Your task to perform on an android device: uninstall "AliExpress" Image 0: 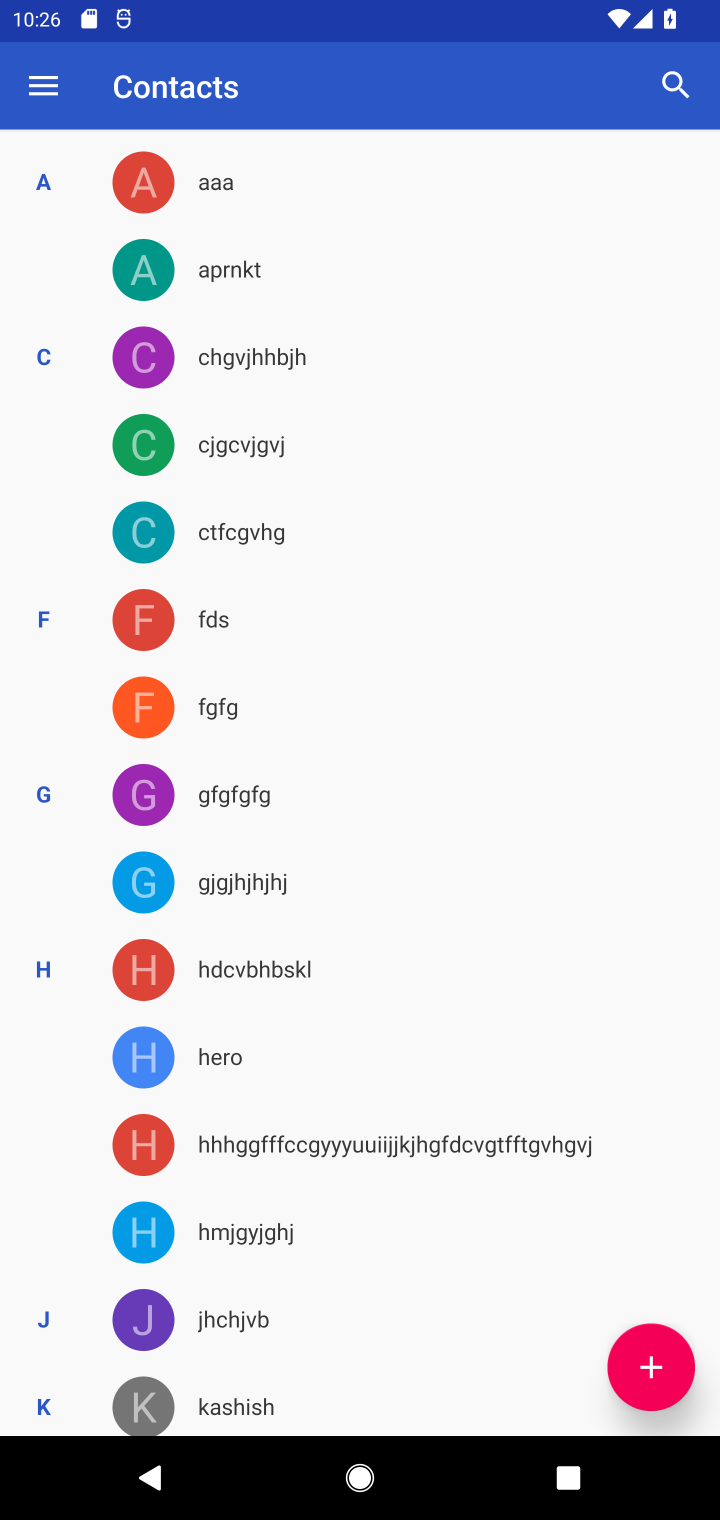
Step 0: press home button
Your task to perform on an android device: uninstall "AliExpress" Image 1: 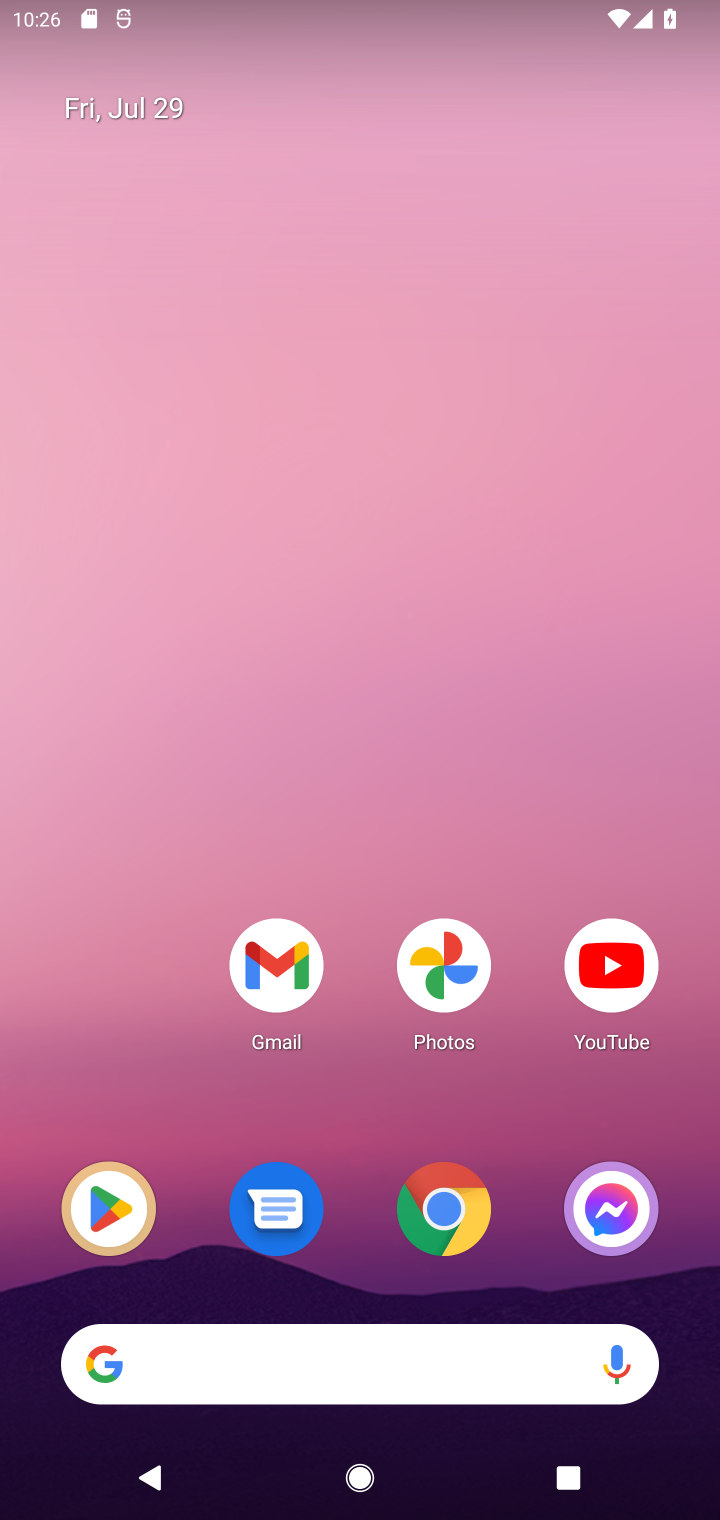
Step 1: drag from (522, 919) to (466, 212)
Your task to perform on an android device: uninstall "AliExpress" Image 2: 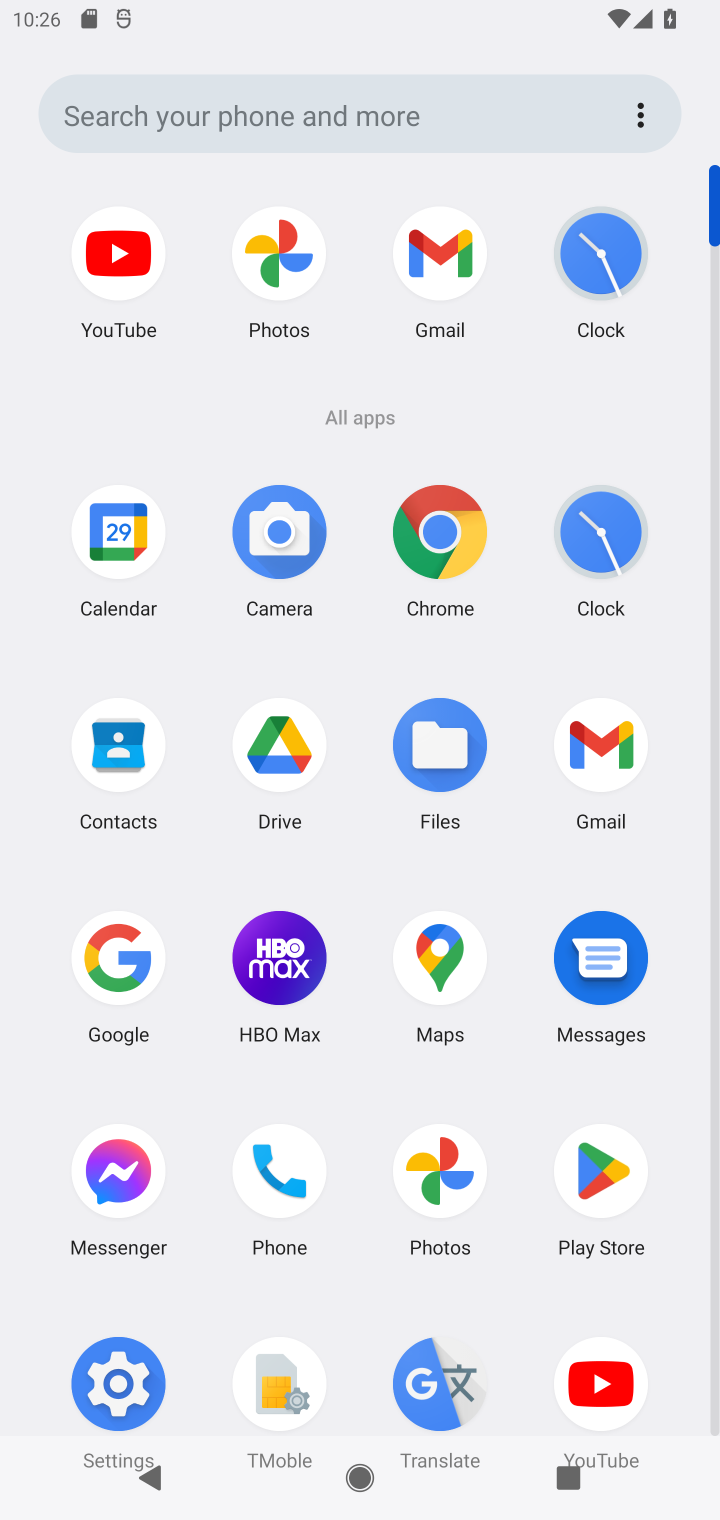
Step 2: click (611, 1180)
Your task to perform on an android device: uninstall "AliExpress" Image 3: 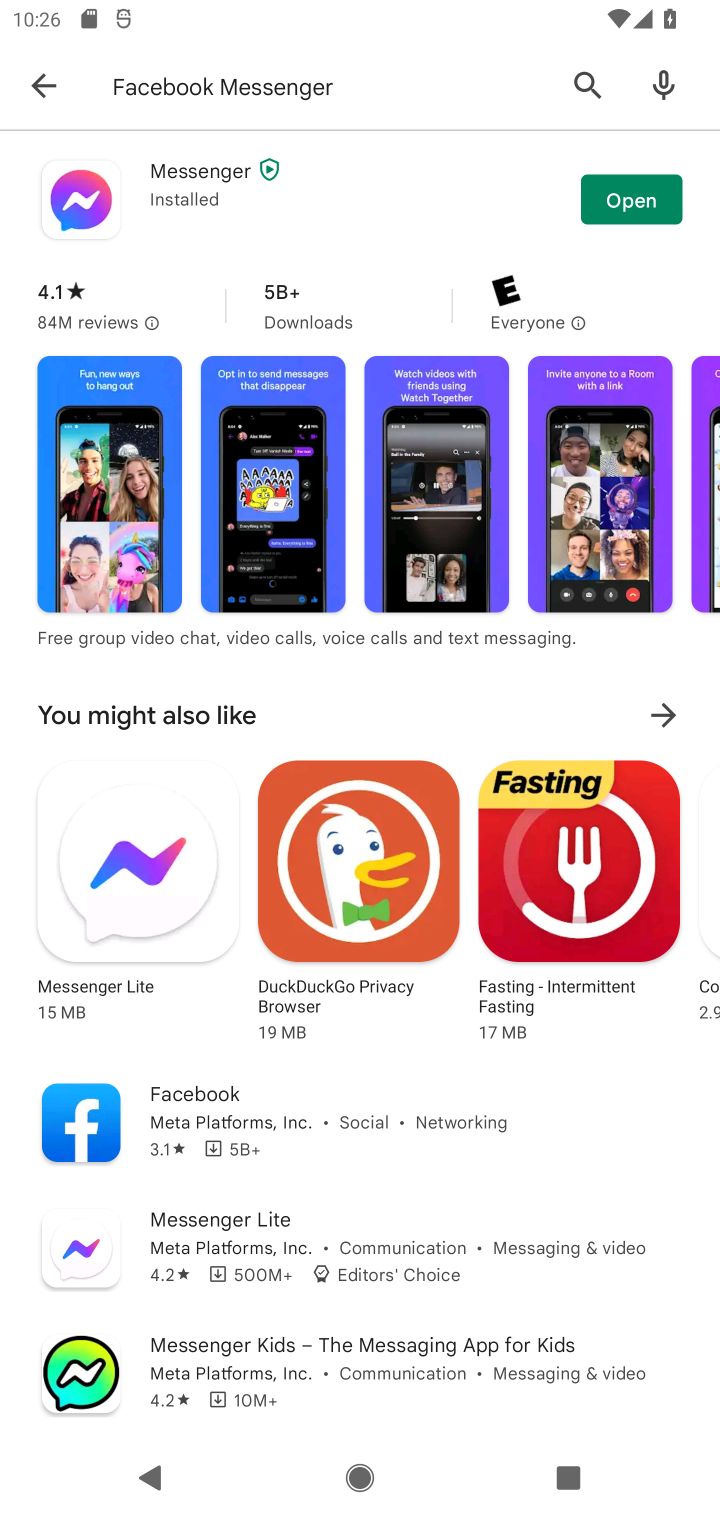
Step 3: click (364, 100)
Your task to perform on an android device: uninstall "AliExpress" Image 4: 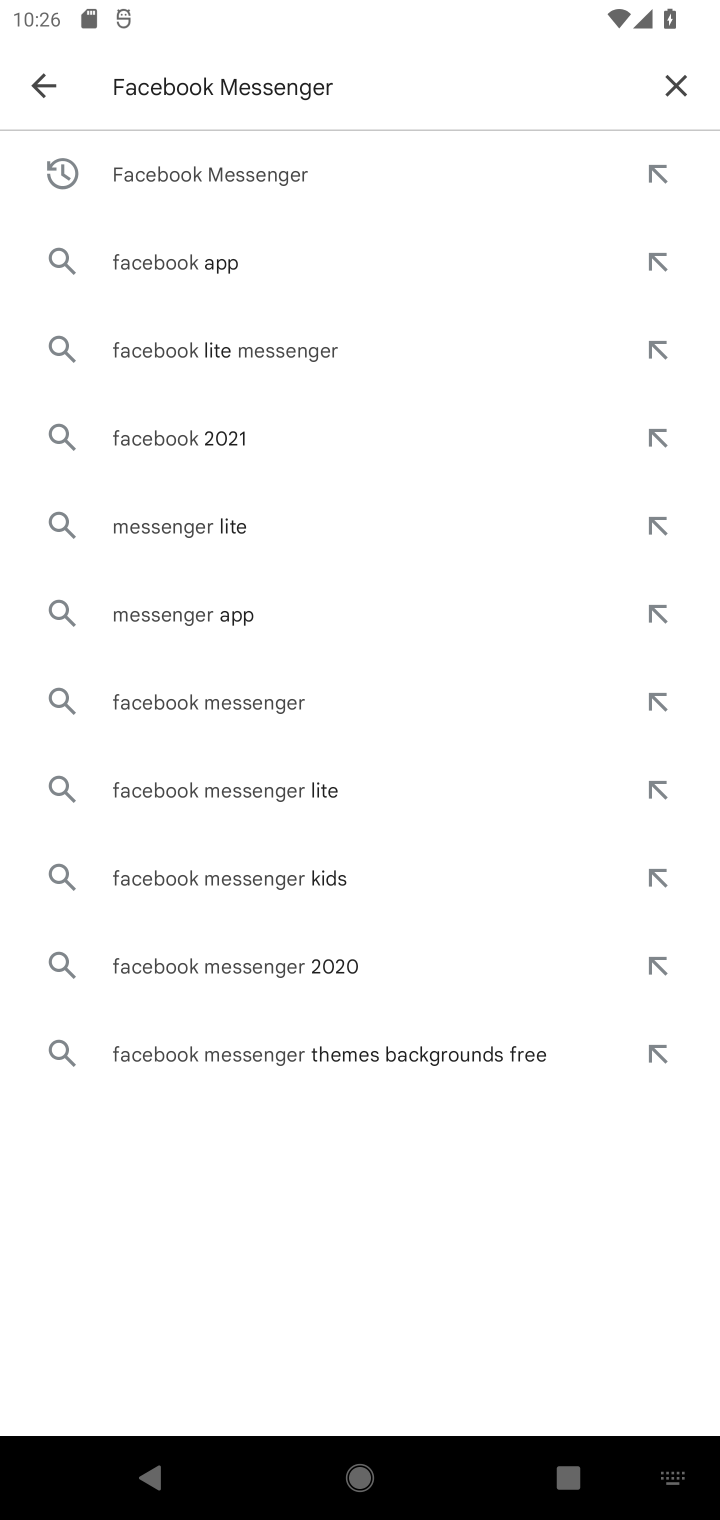
Step 4: click (674, 70)
Your task to perform on an android device: uninstall "AliExpress" Image 5: 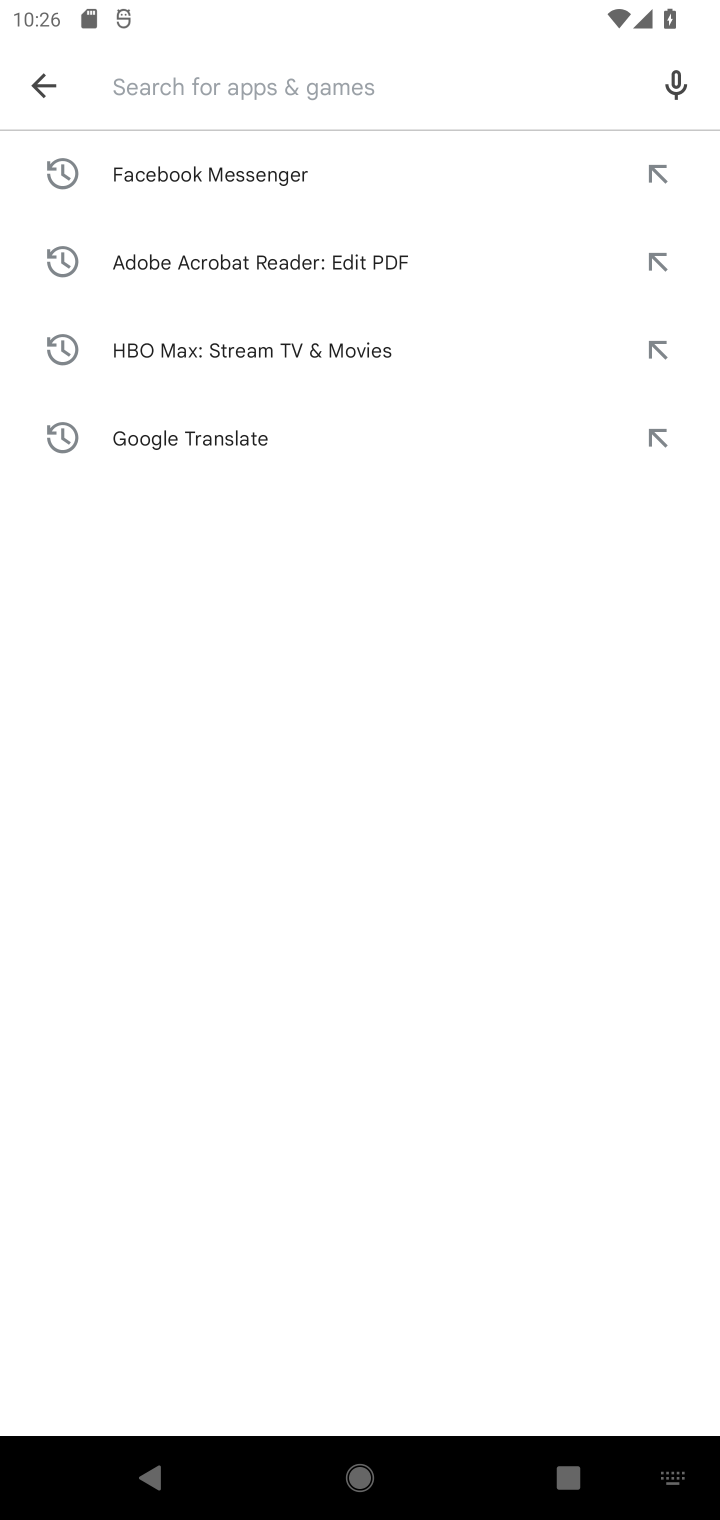
Step 5: type "AliExpress"
Your task to perform on an android device: uninstall "AliExpress" Image 6: 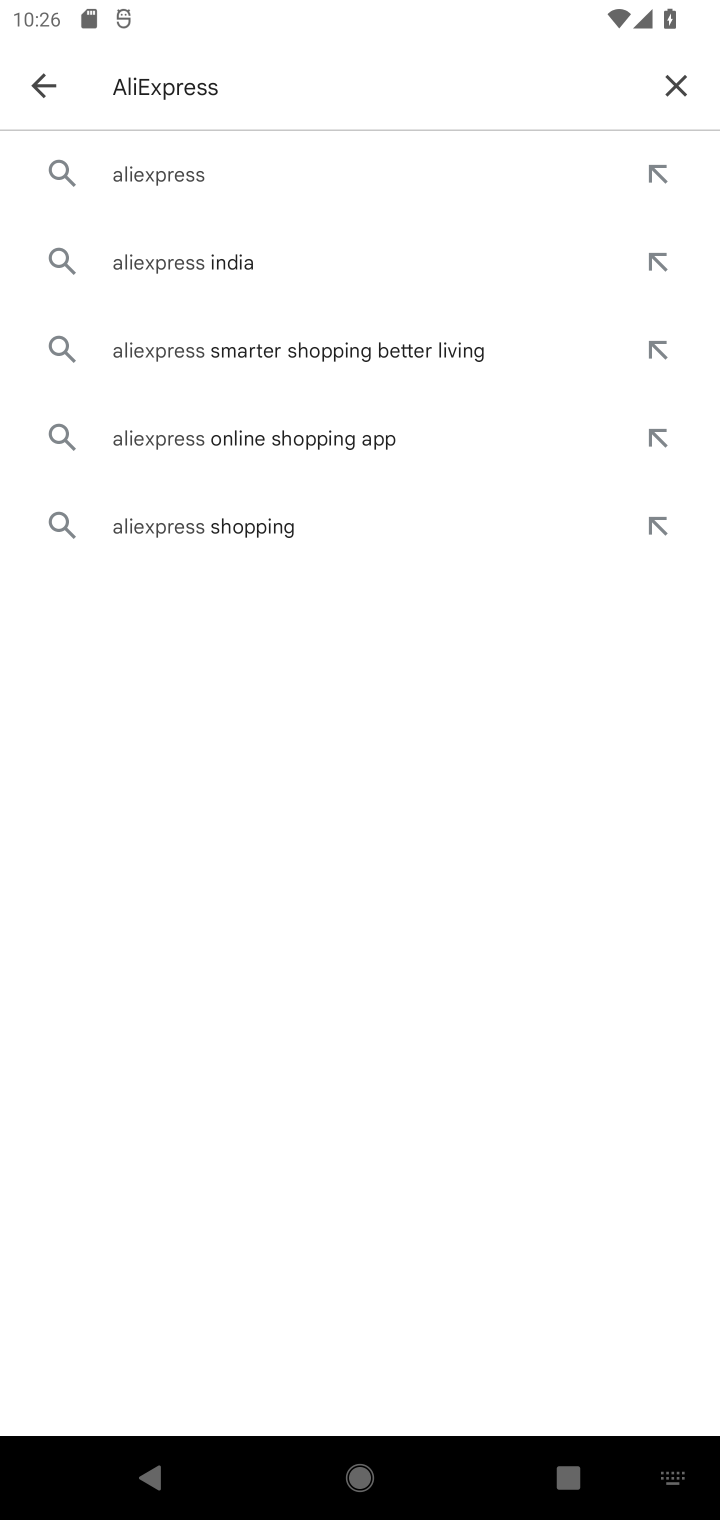
Step 6: press enter
Your task to perform on an android device: uninstall "AliExpress" Image 7: 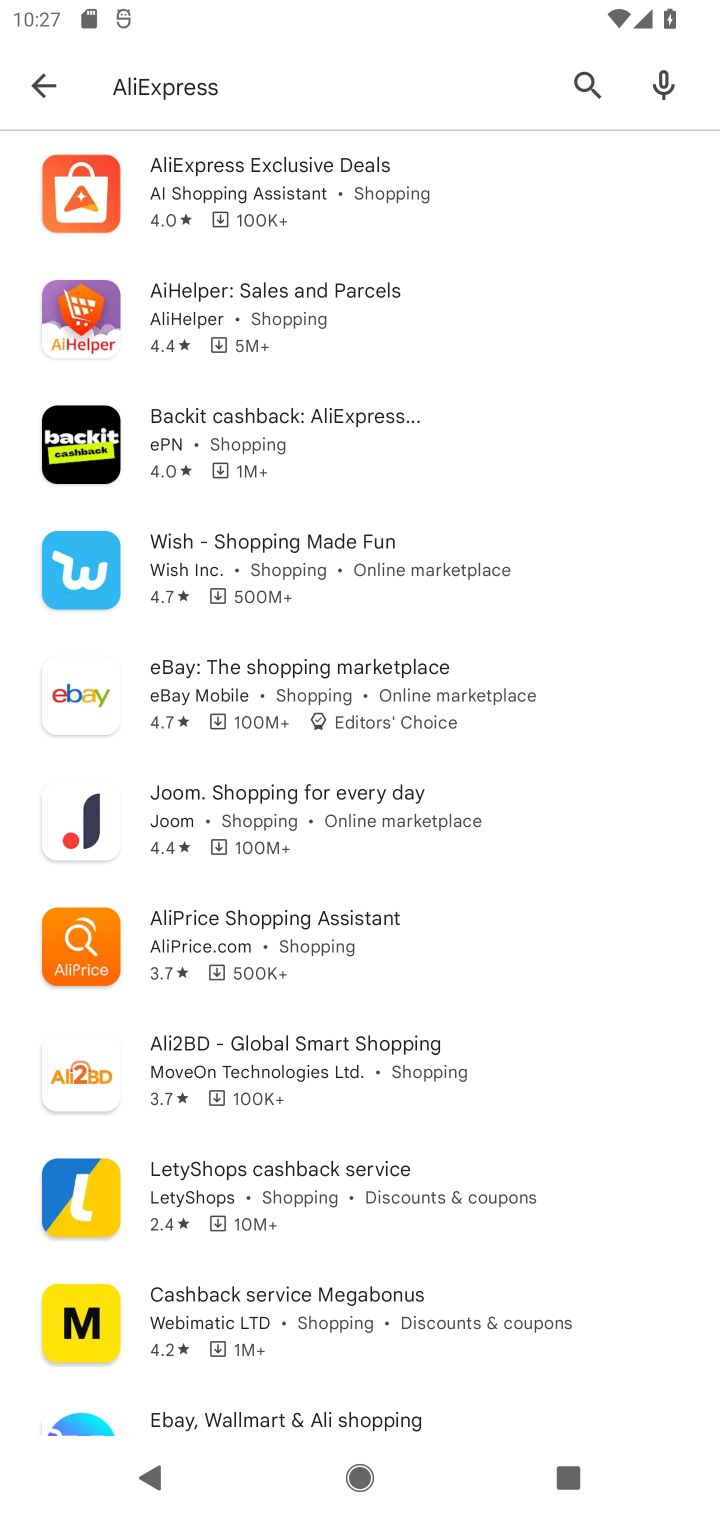
Step 7: task complete